Your task to perform on an android device: Open Chrome and go to settings Image 0: 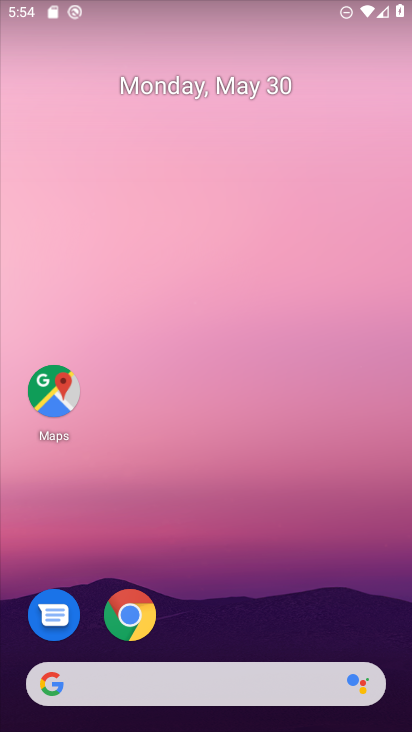
Step 0: click (138, 615)
Your task to perform on an android device: Open Chrome and go to settings Image 1: 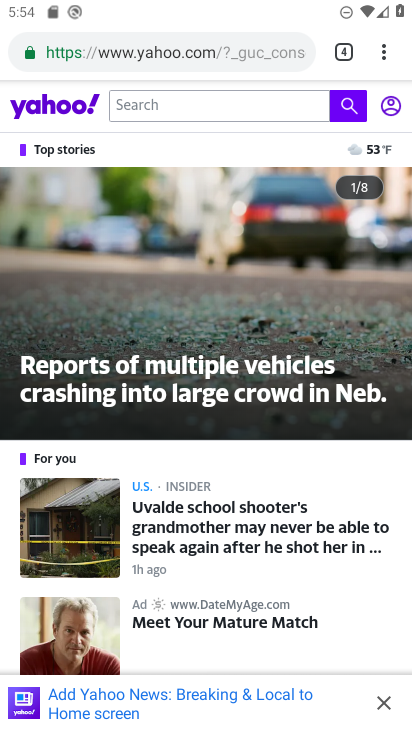
Step 1: click (373, 50)
Your task to perform on an android device: Open Chrome and go to settings Image 2: 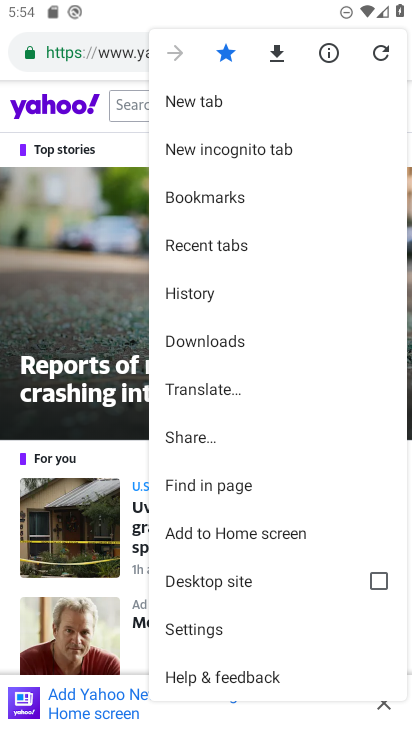
Step 2: click (195, 641)
Your task to perform on an android device: Open Chrome and go to settings Image 3: 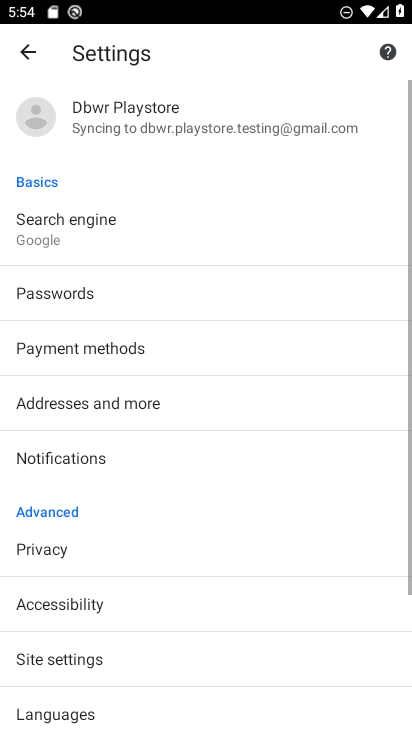
Step 3: task complete